Your task to perform on an android device: Go to Google Image 0: 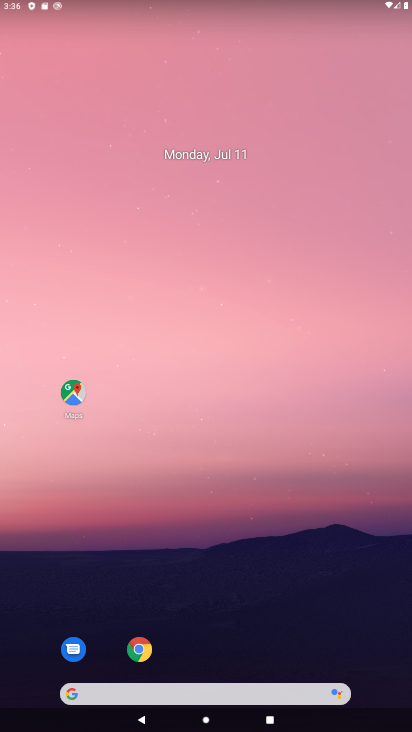
Step 0: drag from (184, 664) to (217, 19)
Your task to perform on an android device: Go to Google Image 1: 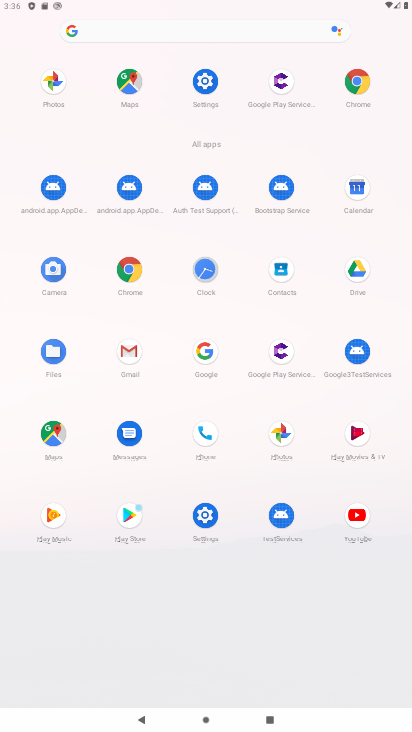
Step 1: click (206, 350)
Your task to perform on an android device: Go to Google Image 2: 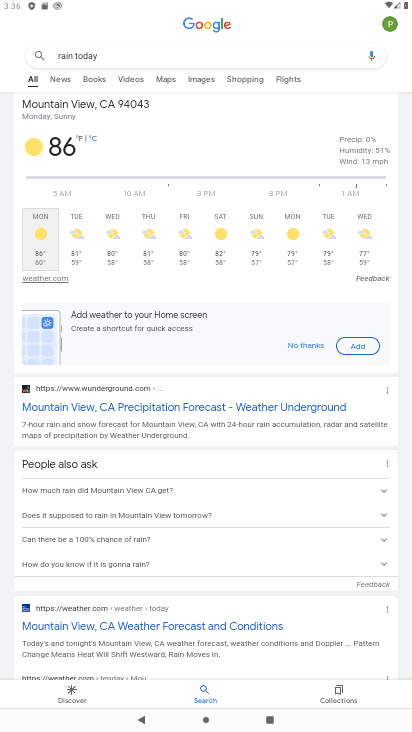
Step 2: task complete